Your task to perform on an android device: see sites visited before in the chrome app Image 0: 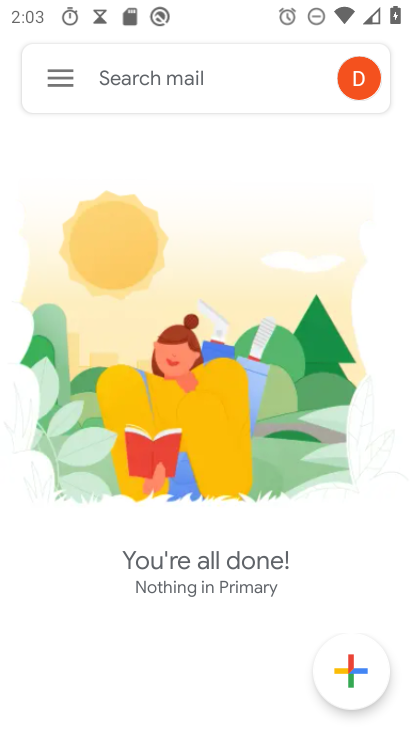
Step 0: press home button
Your task to perform on an android device: see sites visited before in the chrome app Image 1: 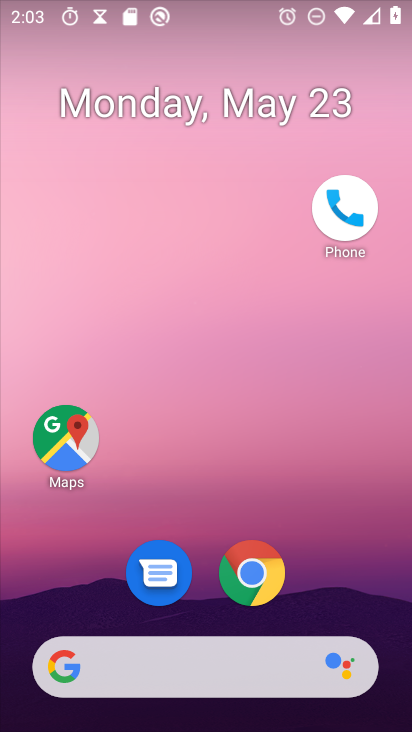
Step 1: click (249, 575)
Your task to perform on an android device: see sites visited before in the chrome app Image 2: 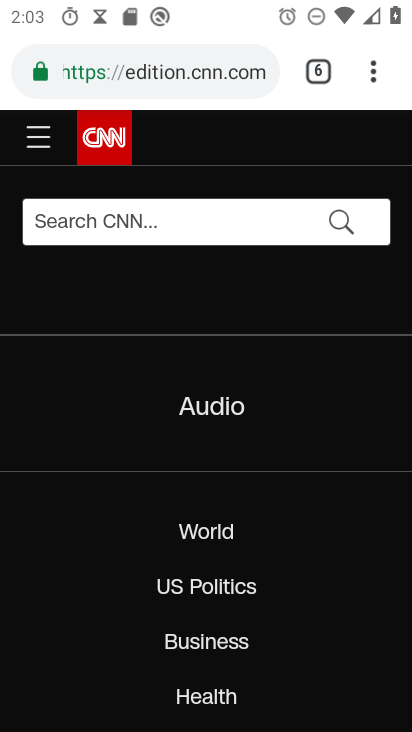
Step 2: task complete